Your task to perform on an android device: change text size in settings app Image 0: 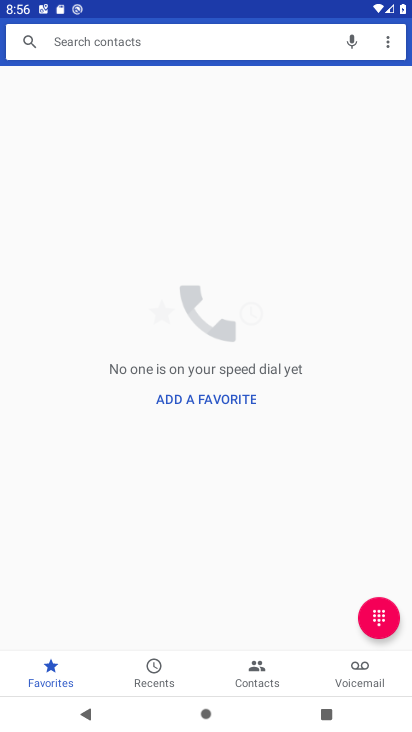
Step 0: press home button
Your task to perform on an android device: change text size in settings app Image 1: 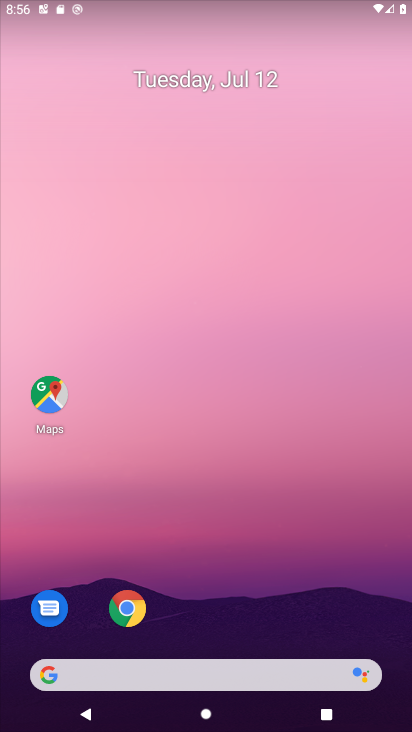
Step 1: drag from (201, 672) to (378, 100)
Your task to perform on an android device: change text size in settings app Image 2: 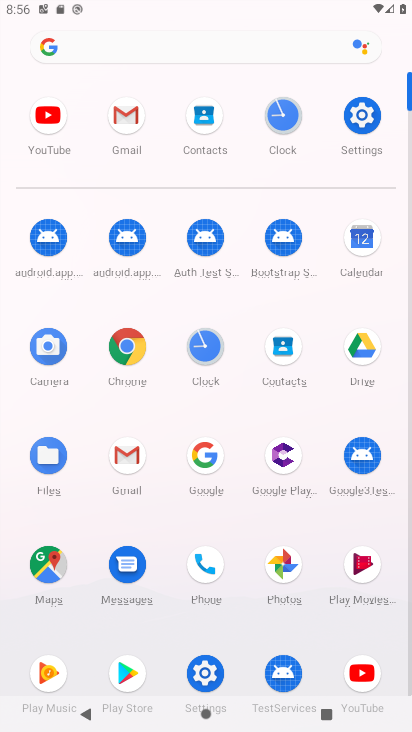
Step 2: click (365, 121)
Your task to perform on an android device: change text size in settings app Image 3: 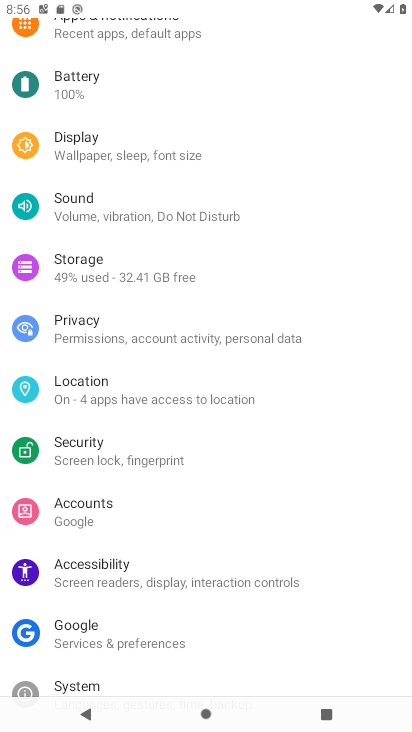
Step 3: click (125, 148)
Your task to perform on an android device: change text size in settings app Image 4: 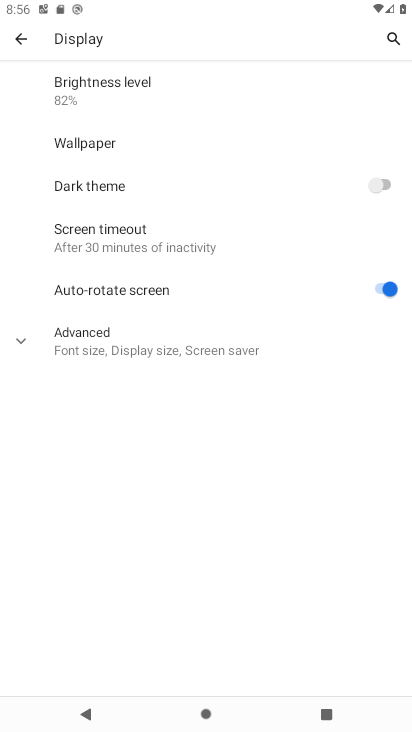
Step 4: click (114, 339)
Your task to perform on an android device: change text size in settings app Image 5: 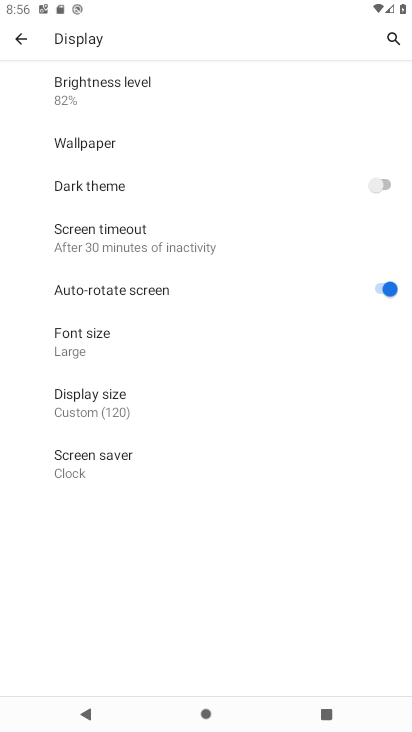
Step 5: click (89, 341)
Your task to perform on an android device: change text size in settings app Image 6: 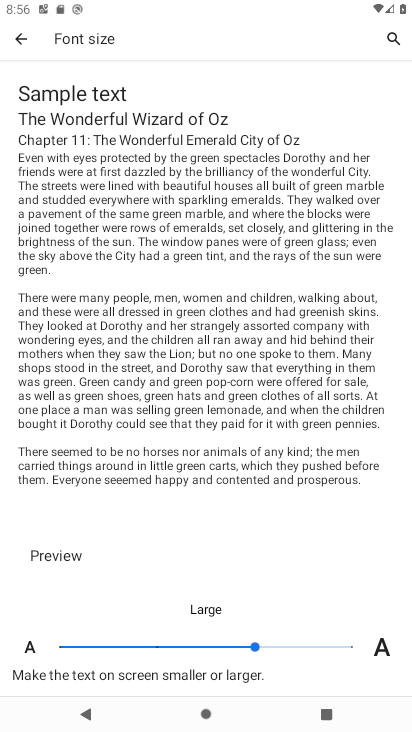
Step 6: click (351, 644)
Your task to perform on an android device: change text size in settings app Image 7: 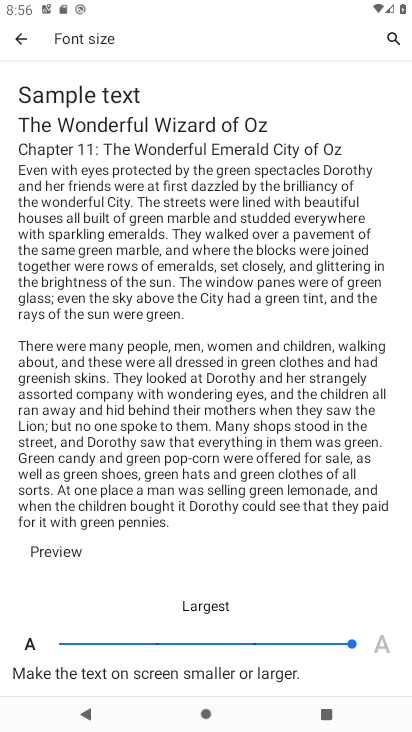
Step 7: task complete